Your task to perform on an android device: Go to wifi settings Image 0: 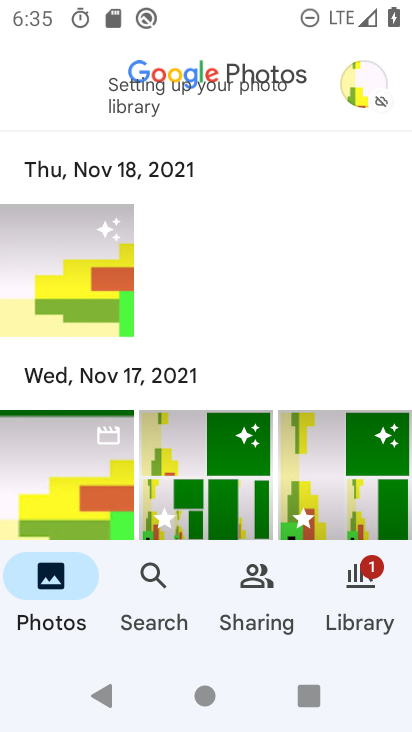
Step 0: press home button
Your task to perform on an android device: Go to wifi settings Image 1: 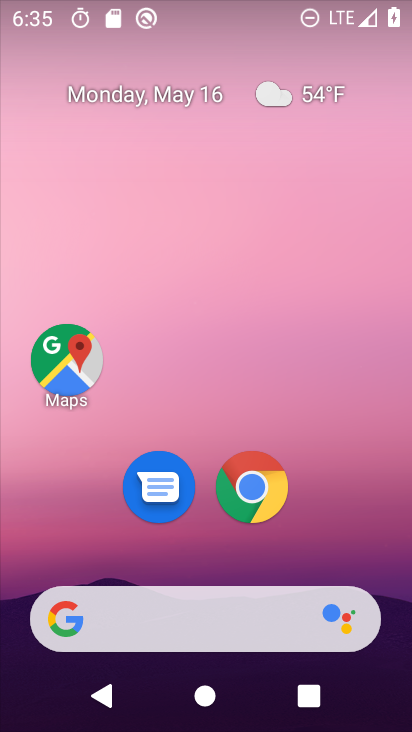
Step 1: drag from (236, 586) to (200, 285)
Your task to perform on an android device: Go to wifi settings Image 2: 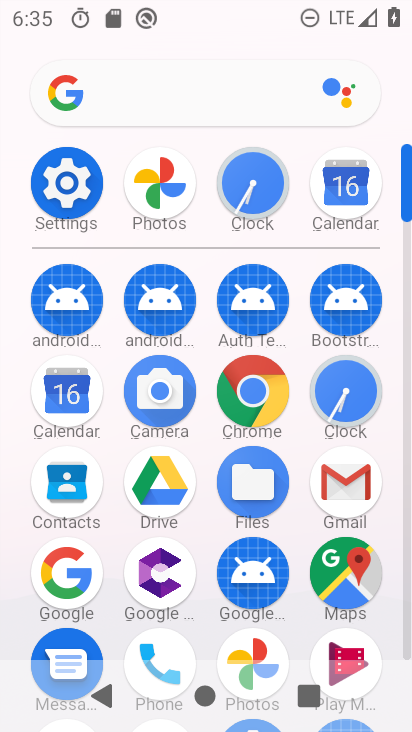
Step 2: click (88, 179)
Your task to perform on an android device: Go to wifi settings Image 3: 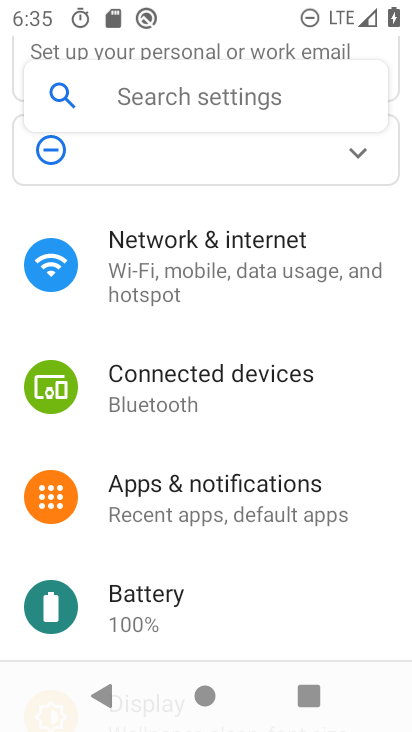
Step 3: click (195, 269)
Your task to perform on an android device: Go to wifi settings Image 4: 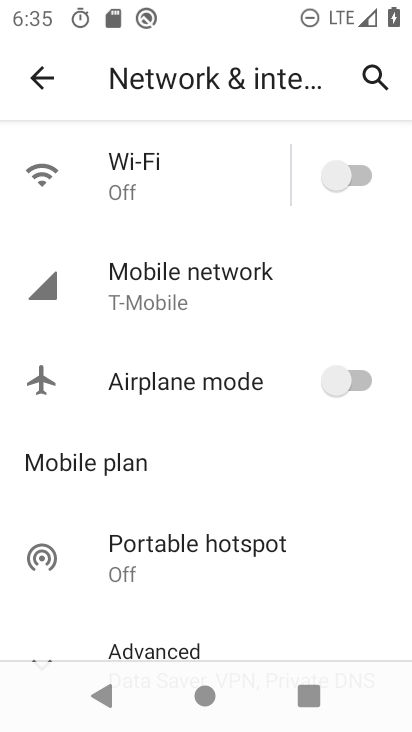
Step 4: click (159, 168)
Your task to perform on an android device: Go to wifi settings Image 5: 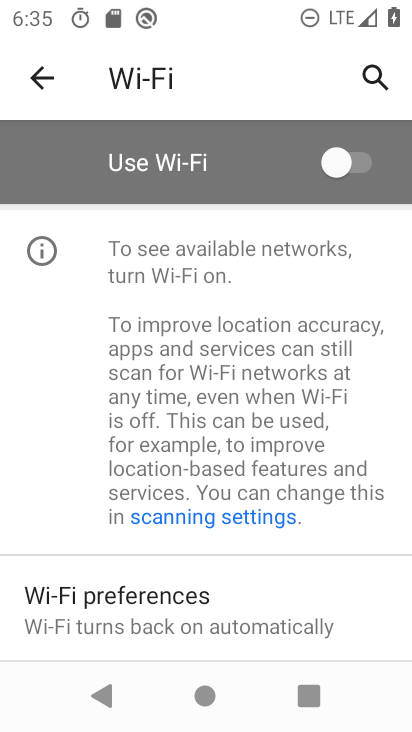
Step 5: task complete